Your task to perform on an android device: change the clock style Image 0: 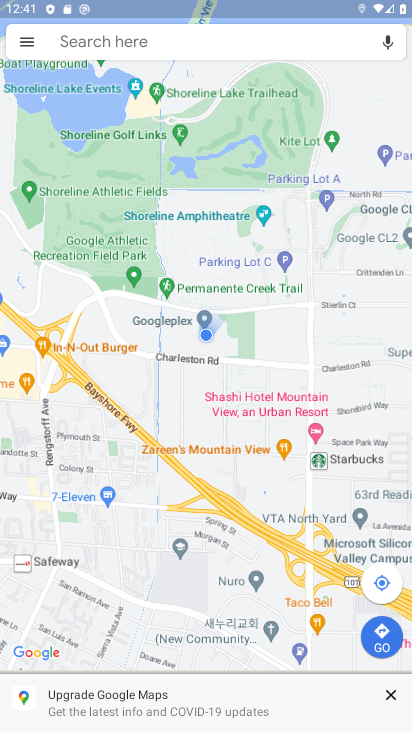
Step 0: press home button
Your task to perform on an android device: change the clock style Image 1: 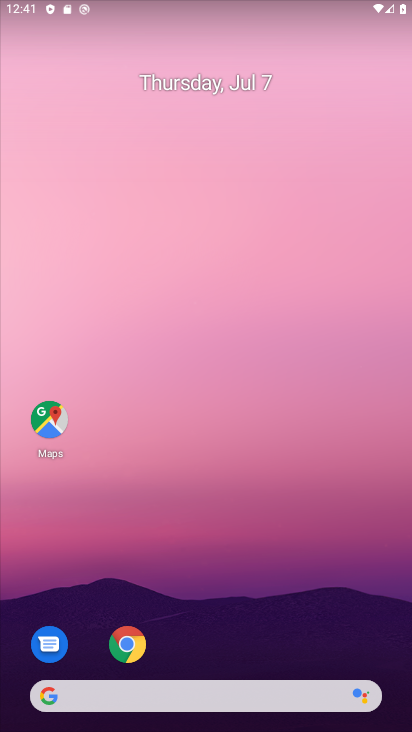
Step 1: drag from (237, 597) to (187, 67)
Your task to perform on an android device: change the clock style Image 2: 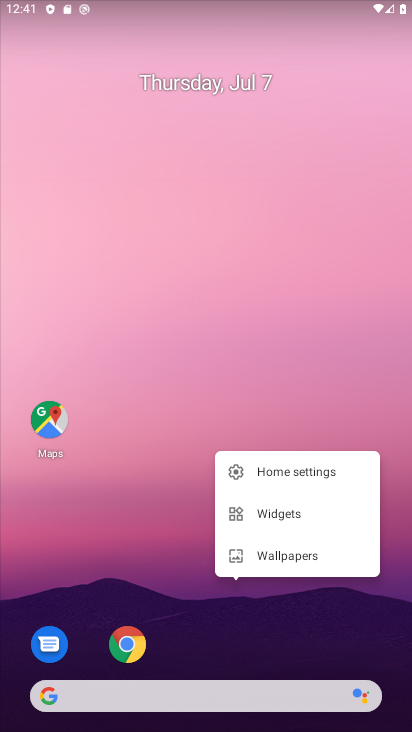
Step 2: drag from (207, 646) to (147, 225)
Your task to perform on an android device: change the clock style Image 3: 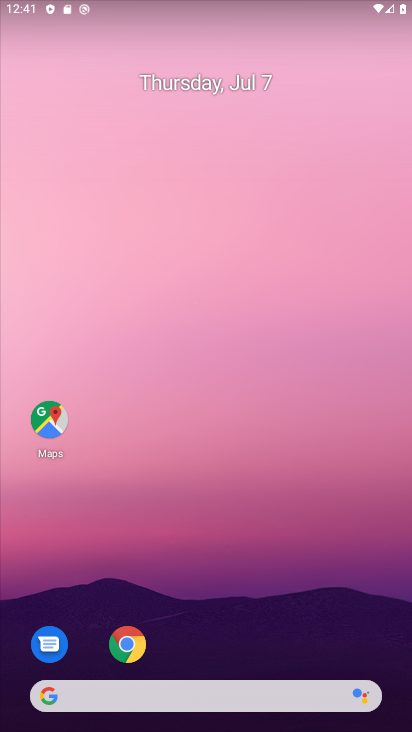
Step 3: drag from (317, 587) to (245, 259)
Your task to perform on an android device: change the clock style Image 4: 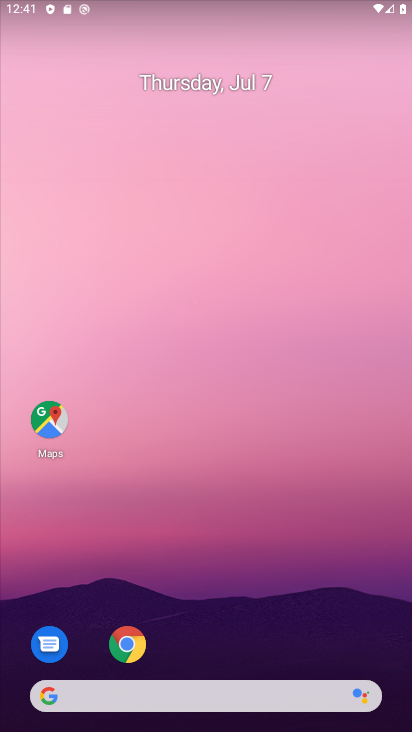
Step 4: drag from (316, 617) to (240, 229)
Your task to perform on an android device: change the clock style Image 5: 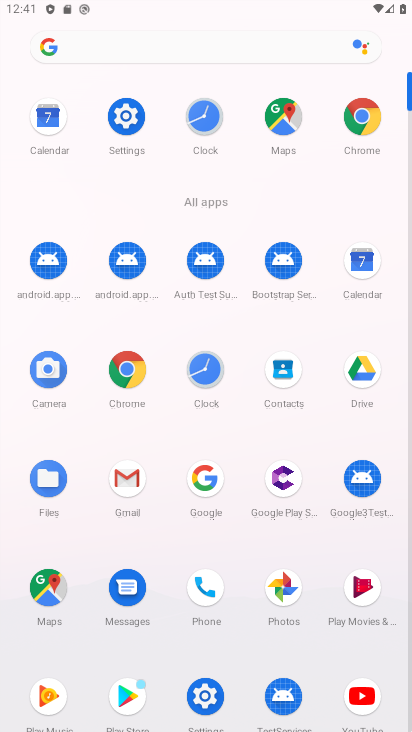
Step 5: click (197, 357)
Your task to perform on an android device: change the clock style Image 6: 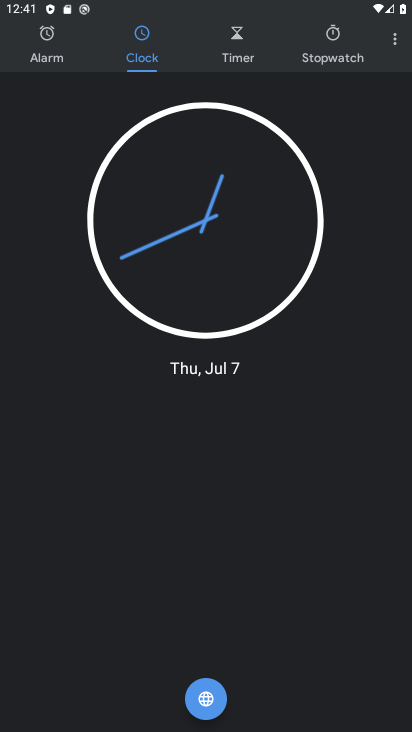
Step 6: click (397, 34)
Your task to perform on an android device: change the clock style Image 7: 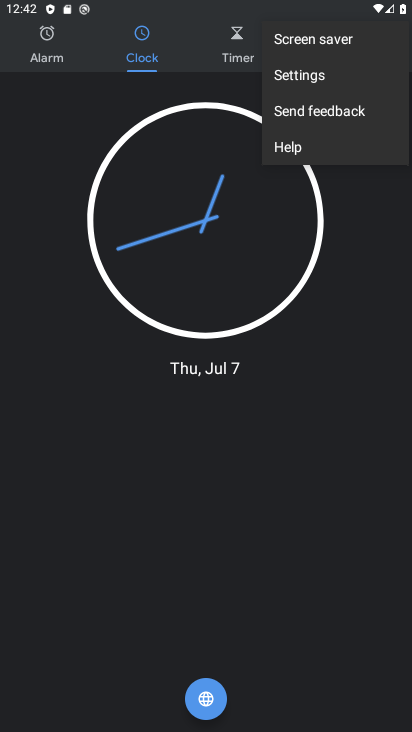
Step 7: click (352, 72)
Your task to perform on an android device: change the clock style Image 8: 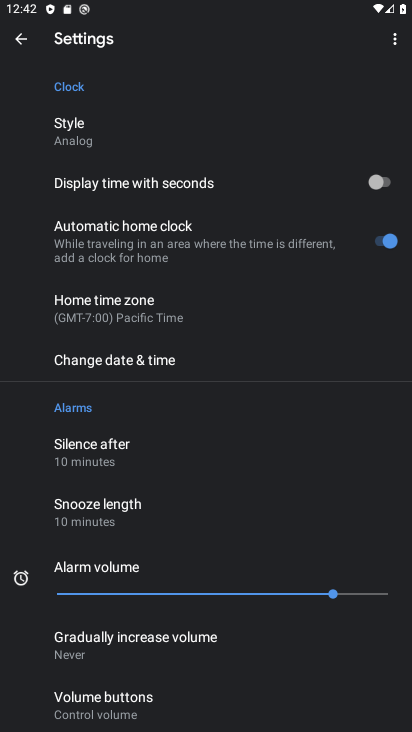
Step 8: click (255, 130)
Your task to perform on an android device: change the clock style Image 9: 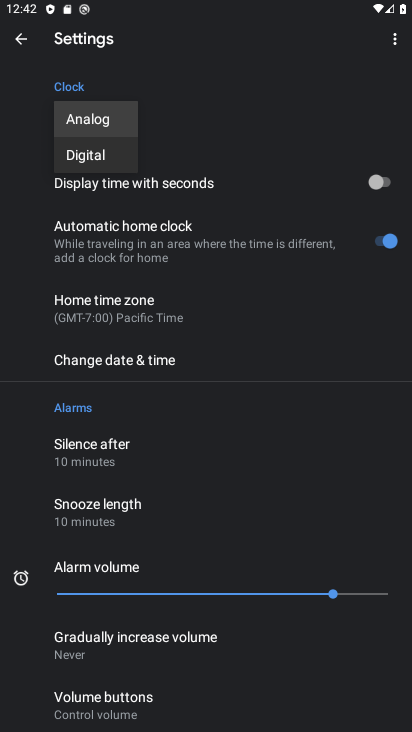
Step 9: click (113, 159)
Your task to perform on an android device: change the clock style Image 10: 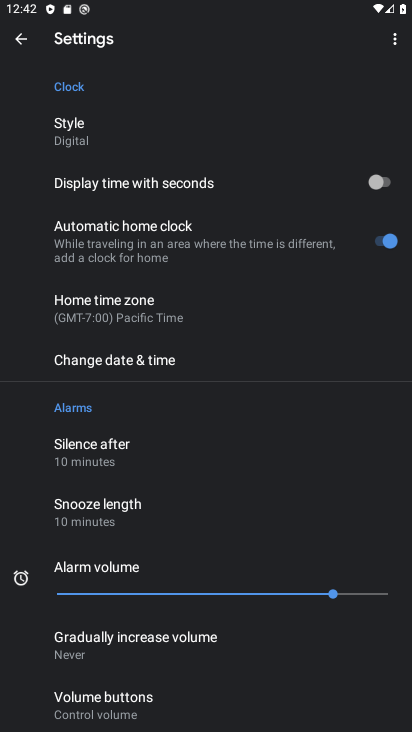
Step 10: task complete